Your task to perform on an android device: turn off picture-in-picture Image 0: 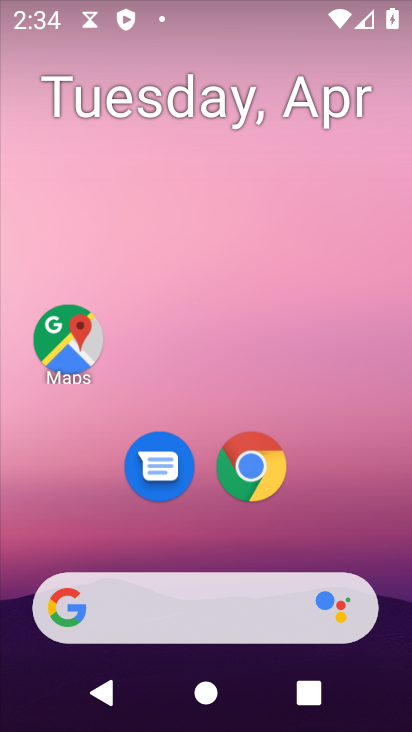
Step 0: drag from (350, 520) to (205, 48)
Your task to perform on an android device: turn off picture-in-picture Image 1: 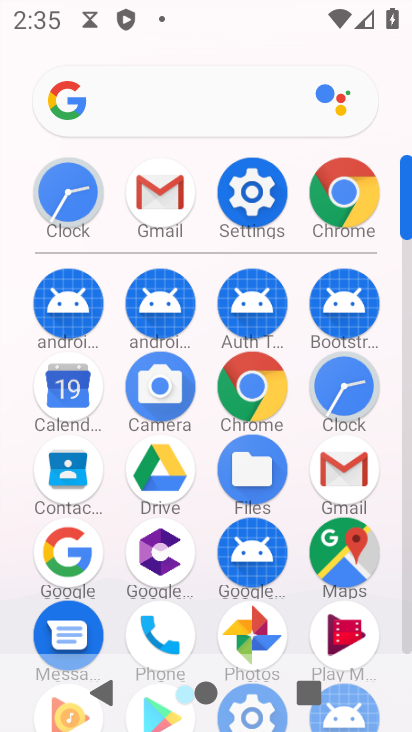
Step 1: click (246, 186)
Your task to perform on an android device: turn off picture-in-picture Image 2: 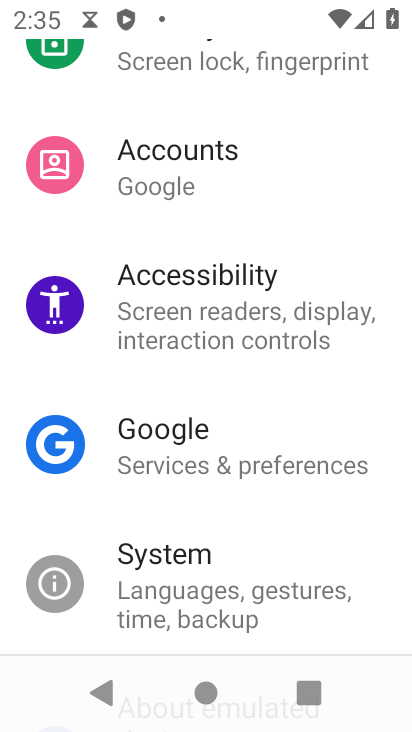
Step 2: drag from (313, 503) to (278, 126)
Your task to perform on an android device: turn off picture-in-picture Image 3: 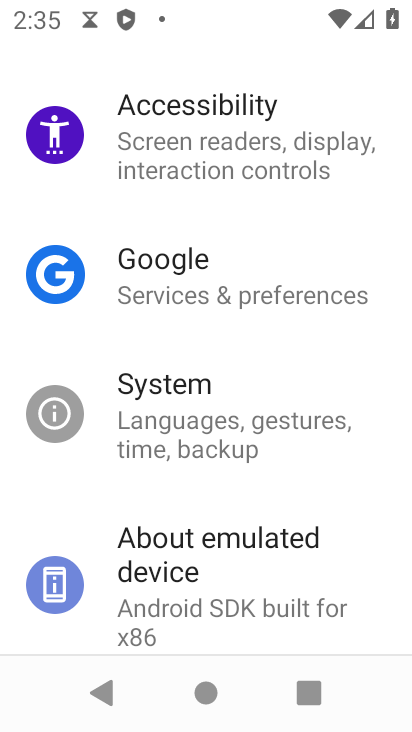
Step 3: drag from (290, 431) to (278, 61)
Your task to perform on an android device: turn off picture-in-picture Image 4: 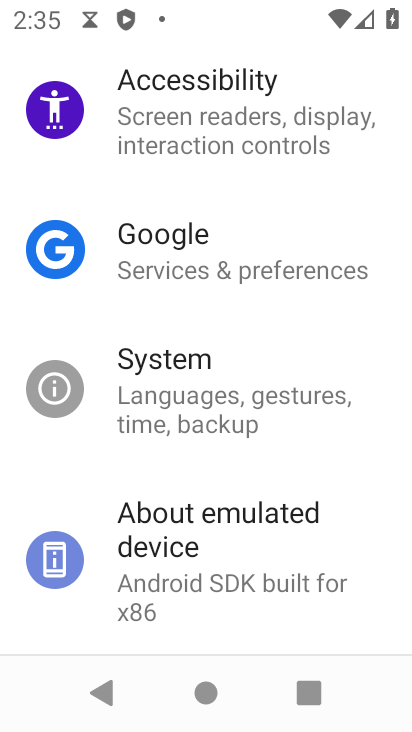
Step 4: drag from (277, 430) to (279, 123)
Your task to perform on an android device: turn off picture-in-picture Image 5: 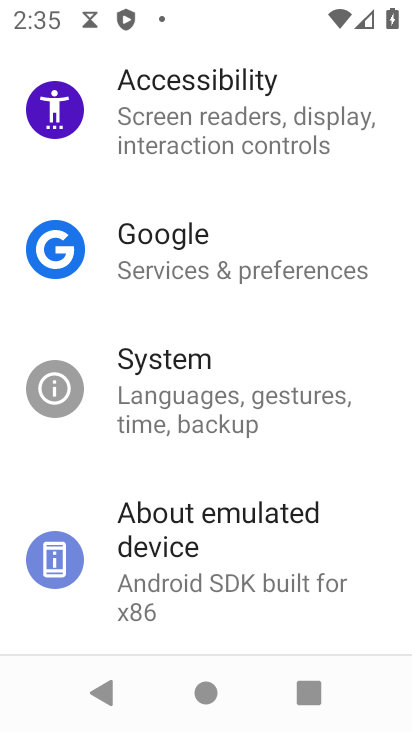
Step 5: drag from (259, 167) to (273, 487)
Your task to perform on an android device: turn off picture-in-picture Image 6: 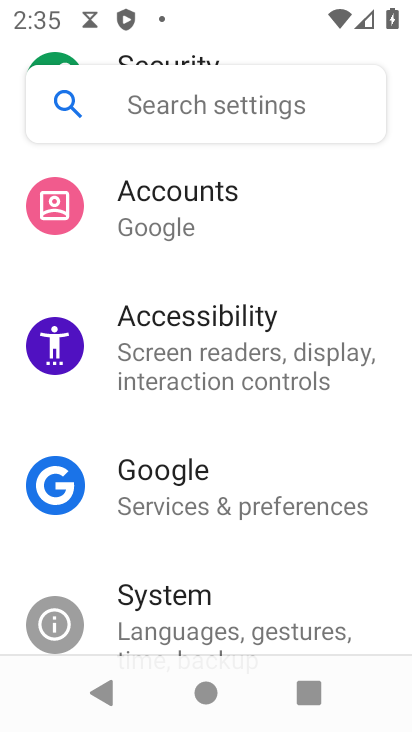
Step 6: drag from (278, 216) to (284, 451)
Your task to perform on an android device: turn off picture-in-picture Image 7: 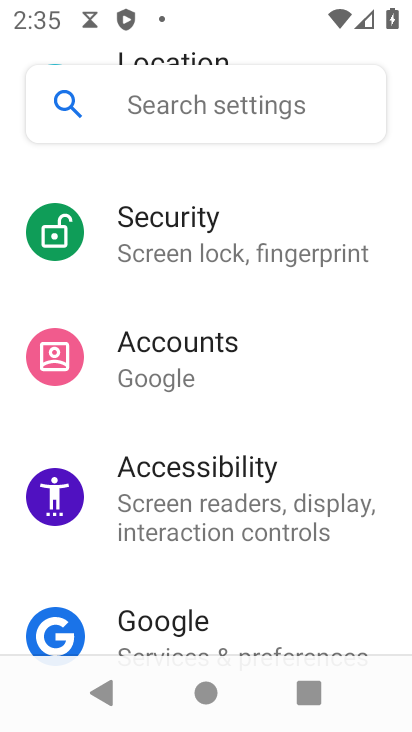
Step 7: drag from (282, 146) to (293, 456)
Your task to perform on an android device: turn off picture-in-picture Image 8: 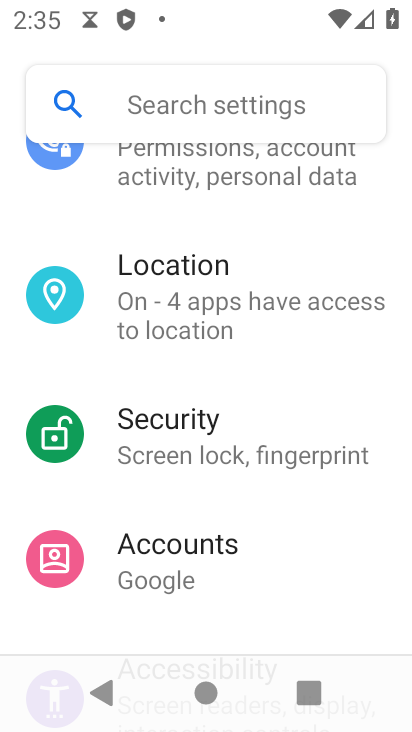
Step 8: drag from (257, 196) to (258, 444)
Your task to perform on an android device: turn off picture-in-picture Image 9: 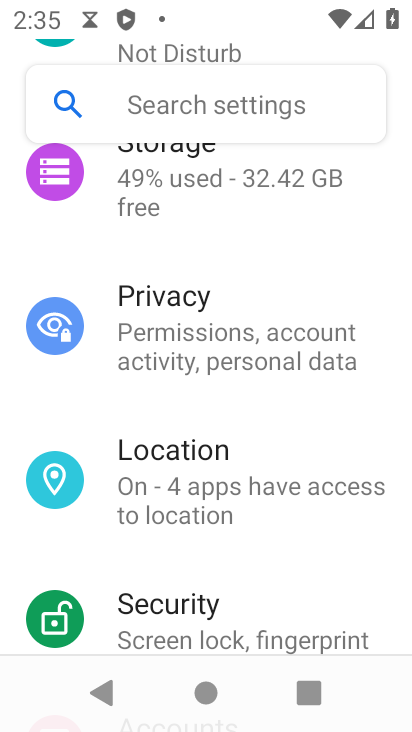
Step 9: drag from (252, 154) to (254, 417)
Your task to perform on an android device: turn off picture-in-picture Image 10: 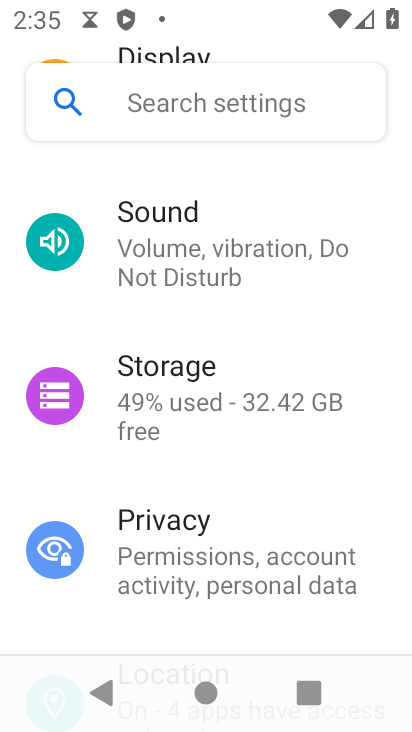
Step 10: drag from (252, 174) to (254, 417)
Your task to perform on an android device: turn off picture-in-picture Image 11: 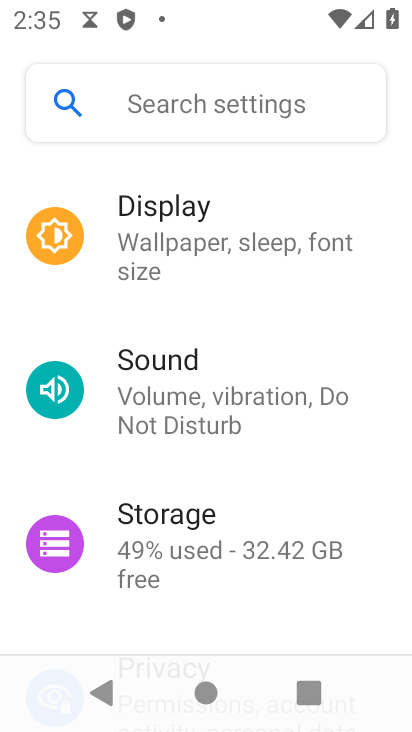
Step 11: drag from (256, 184) to (274, 473)
Your task to perform on an android device: turn off picture-in-picture Image 12: 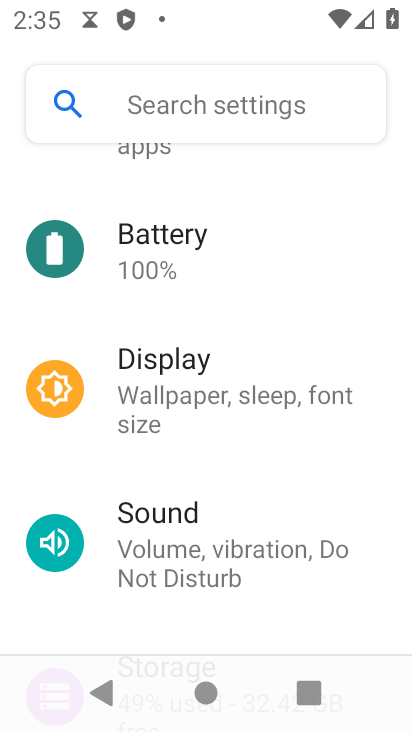
Step 12: drag from (249, 304) to (237, 499)
Your task to perform on an android device: turn off picture-in-picture Image 13: 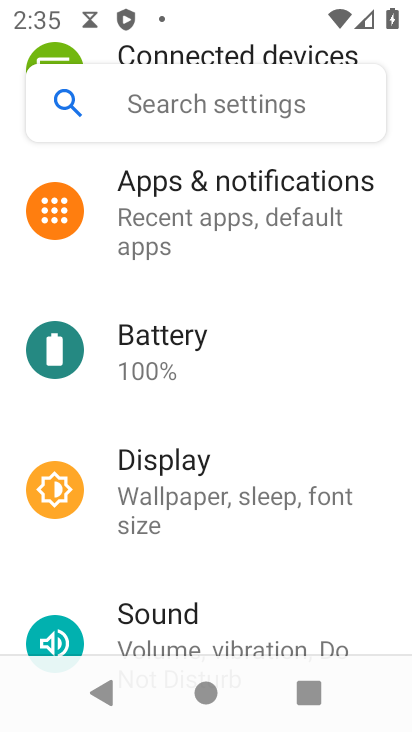
Step 13: click (232, 236)
Your task to perform on an android device: turn off picture-in-picture Image 14: 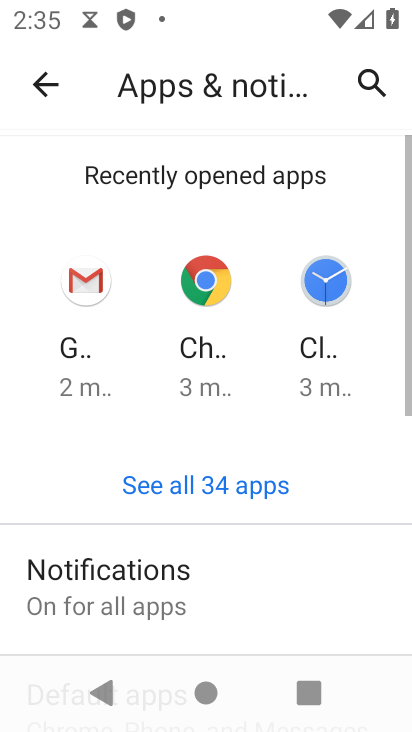
Step 14: drag from (240, 571) to (257, 211)
Your task to perform on an android device: turn off picture-in-picture Image 15: 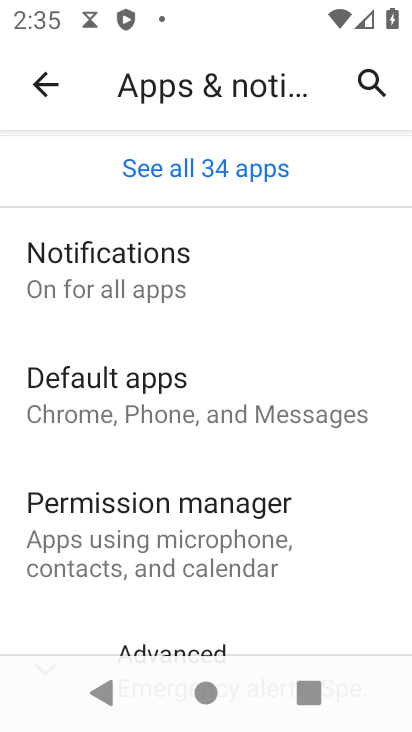
Step 15: drag from (254, 375) to (248, 144)
Your task to perform on an android device: turn off picture-in-picture Image 16: 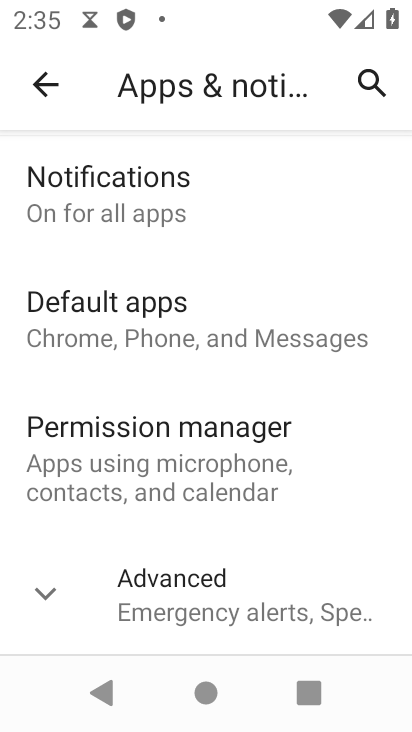
Step 16: click (234, 548)
Your task to perform on an android device: turn off picture-in-picture Image 17: 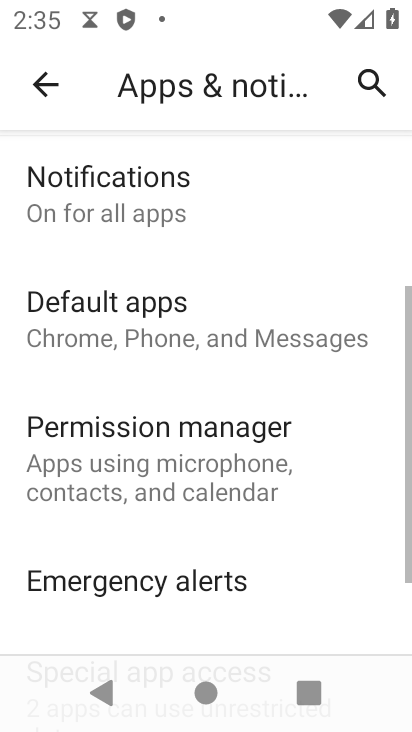
Step 17: drag from (270, 612) to (273, 103)
Your task to perform on an android device: turn off picture-in-picture Image 18: 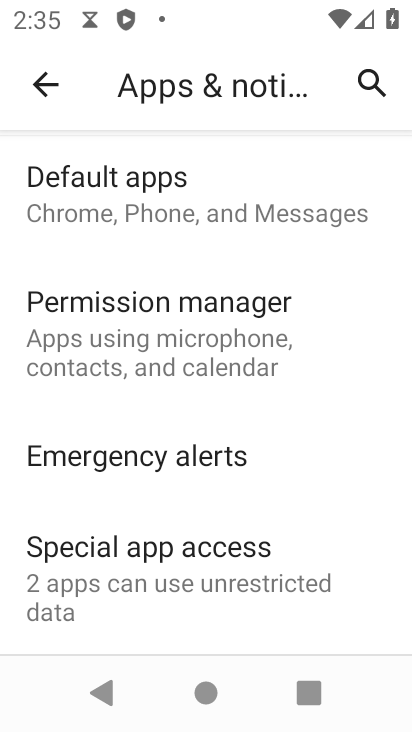
Step 18: drag from (265, 543) to (268, 202)
Your task to perform on an android device: turn off picture-in-picture Image 19: 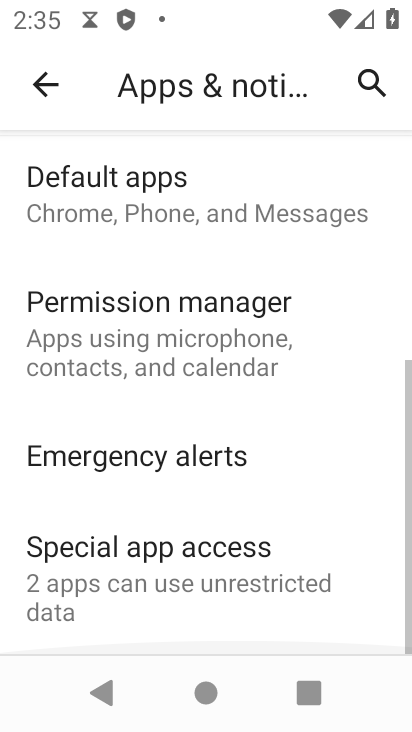
Step 19: click (227, 494)
Your task to perform on an android device: turn off picture-in-picture Image 20: 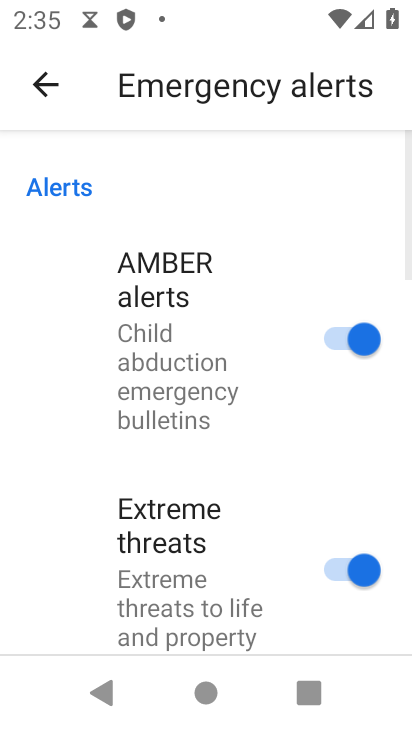
Step 20: click (108, 696)
Your task to perform on an android device: turn off picture-in-picture Image 21: 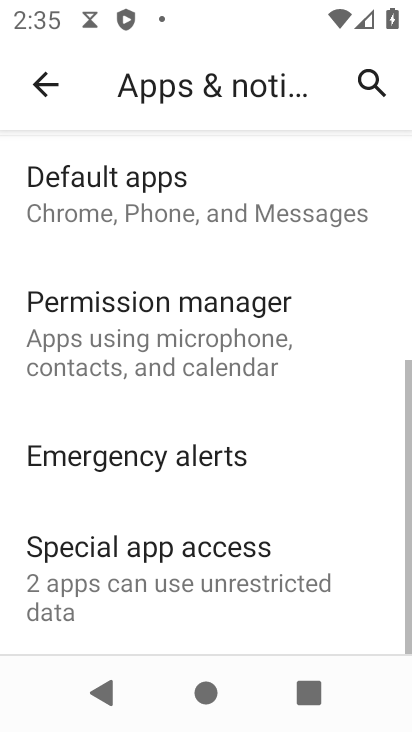
Step 21: click (137, 555)
Your task to perform on an android device: turn off picture-in-picture Image 22: 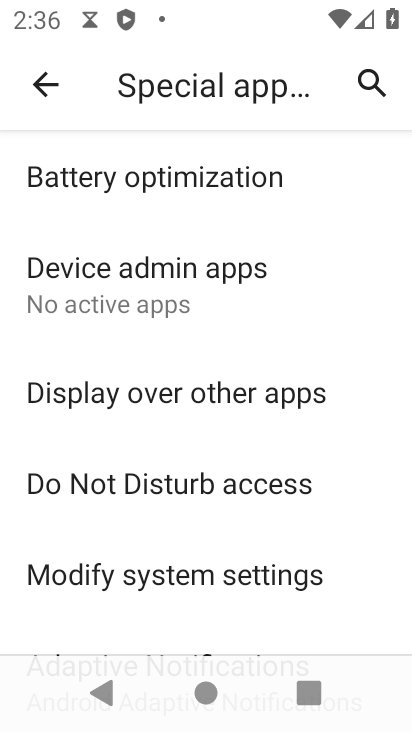
Step 22: drag from (240, 509) to (241, 170)
Your task to perform on an android device: turn off picture-in-picture Image 23: 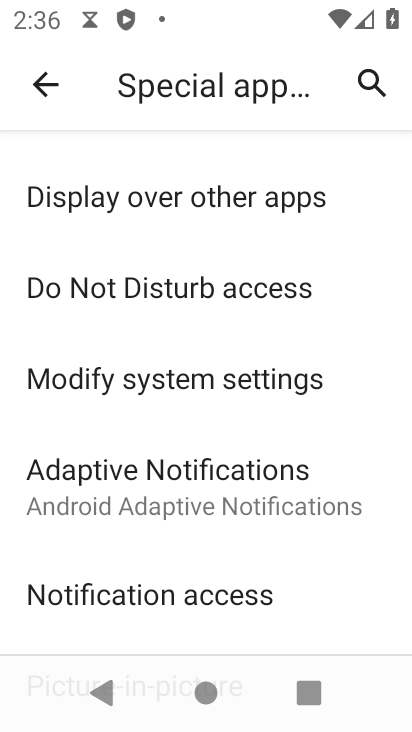
Step 23: drag from (223, 568) to (236, 246)
Your task to perform on an android device: turn off picture-in-picture Image 24: 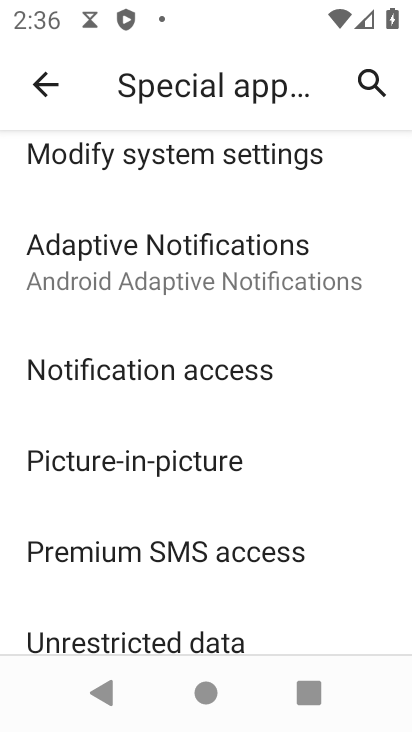
Step 24: click (201, 452)
Your task to perform on an android device: turn off picture-in-picture Image 25: 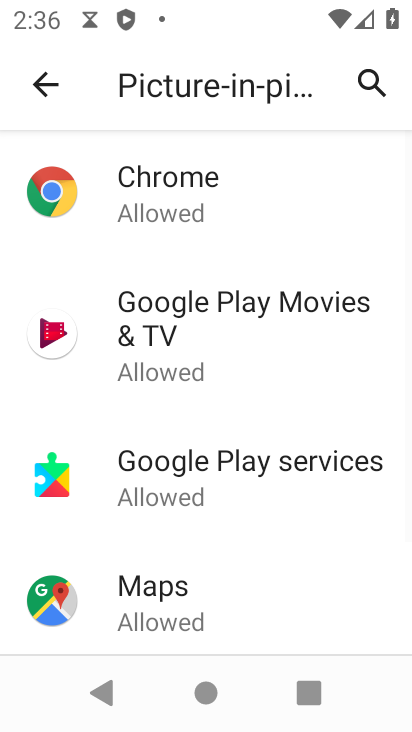
Step 25: click (235, 191)
Your task to perform on an android device: turn off picture-in-picture Image 26: 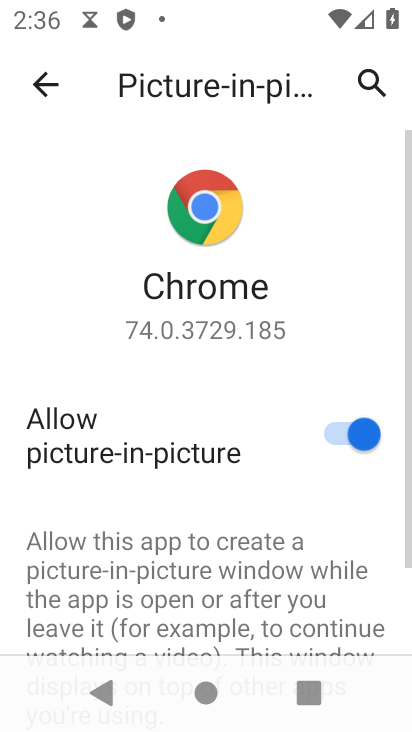
Step 26: click (320, 417)
Your task to perform on an android device: turn off picture-in-picture Image 27: 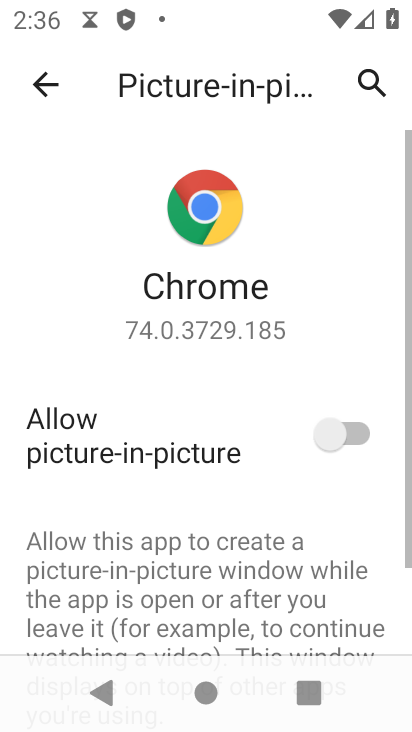
Step 27: click (41, 97)
Your task to perform on an android device: turn off picture-in-picture Image 28: 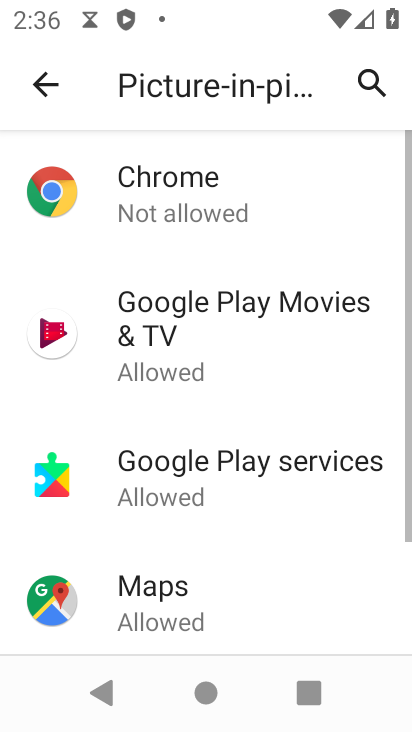
Step 28: click (185, 323)
Your task to perform on an android device: turn off picture-in-picture Image 29: 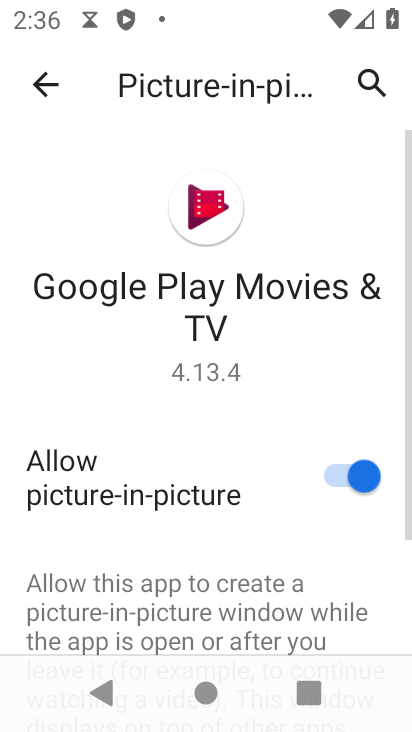
Step 29: click (332, 471)
Your task to perform on an android device: turn off picture-in-picture Image 30: 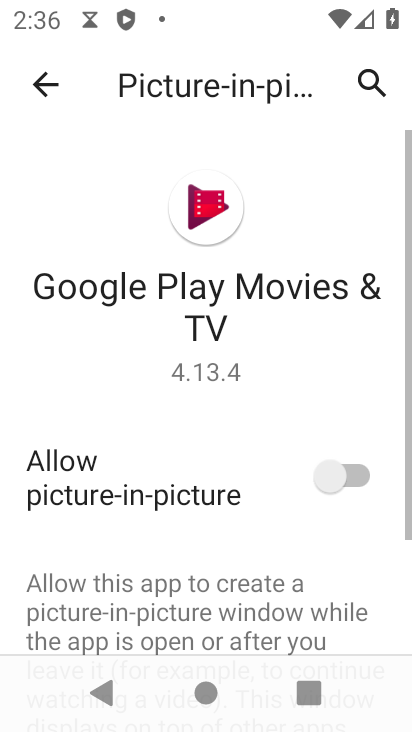
Step 30: click (58, 80)
Your task to perform on an android device: turn off picture-in-picture Image 31: 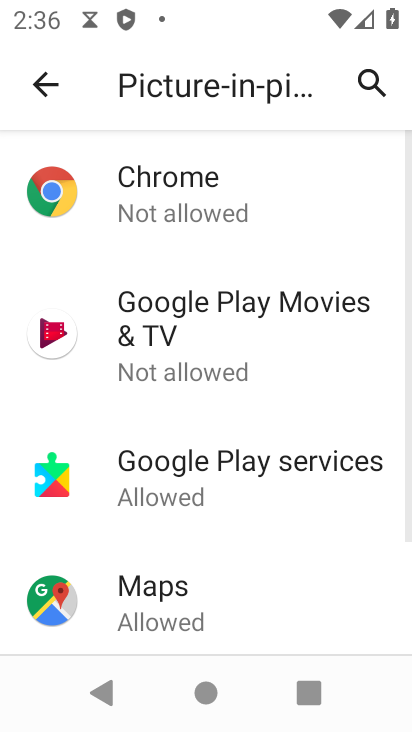
Step 31: click (216, 466)
Your task to perform on an android device: turn off picture-in-picture Image 32: 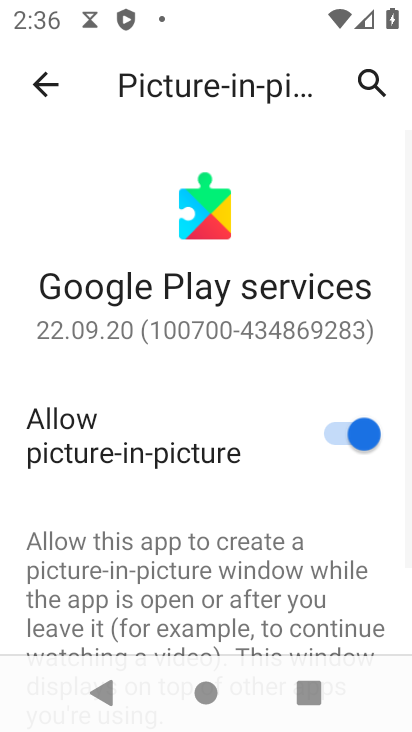
Step 32: click (342, 437)
Your task to perform on an android device: turn off picture-in-picture Image 33: 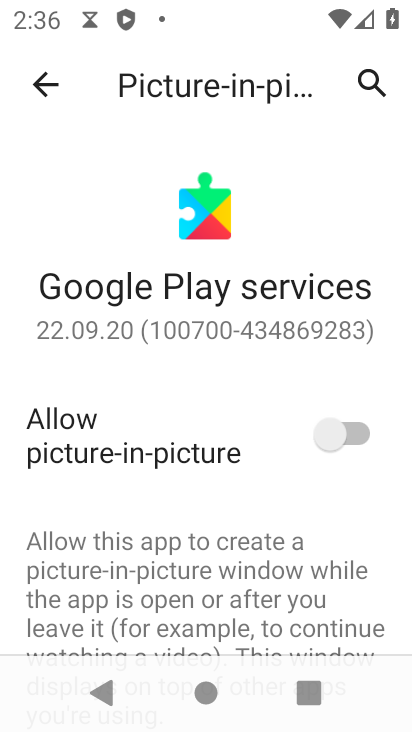
Step 33: click (64, 89)
Your task to perform on an android device: turn off picture-in-picture Image 34: 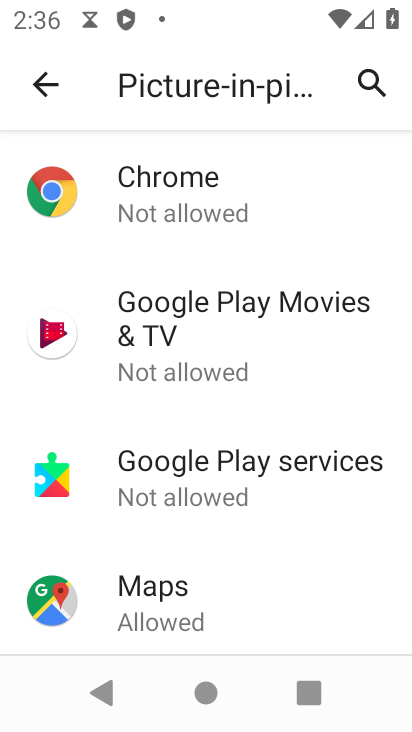
Step 34: click (187, 618)
Your task to perform on an android device: turn off picture-in-picture Image 35: 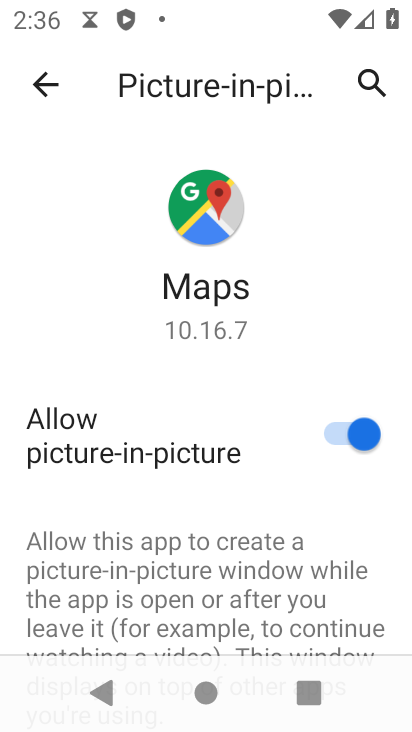
Step 35: click (36, 94)
Your task to perform on an android device: turn off picture-in-picture Image 36: 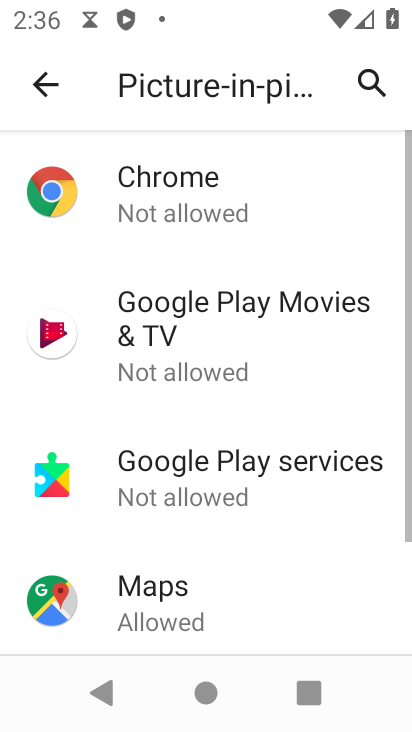
Step 36: drag from (220, 606) to (212, 204)
Your task to perform on an android device: turn off picture-in-picture Image 37: 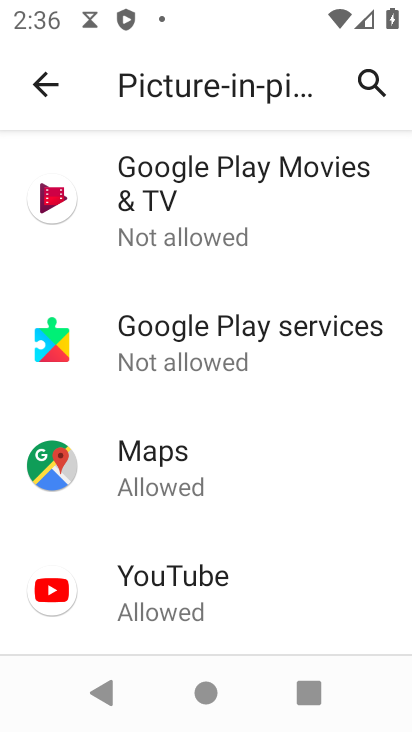
Step 37: drag from (229, 541) to (227, 238)
Your task to perform on an android device: turn off picture-in-picture Image 38: 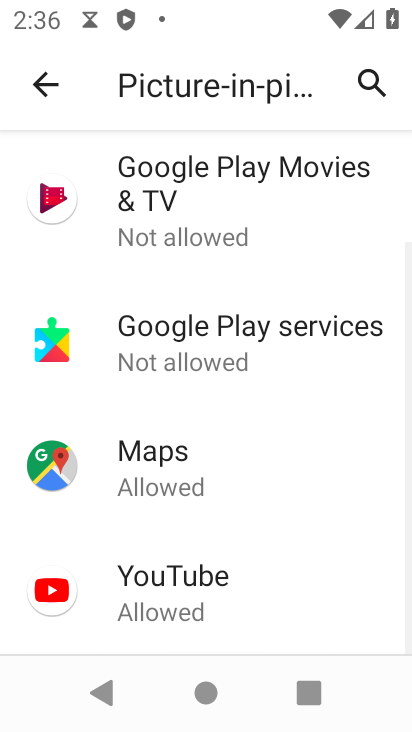
Step 38: click (214, 478)
Your task to perform on an android device: turn off picture-in-picture Image 39: 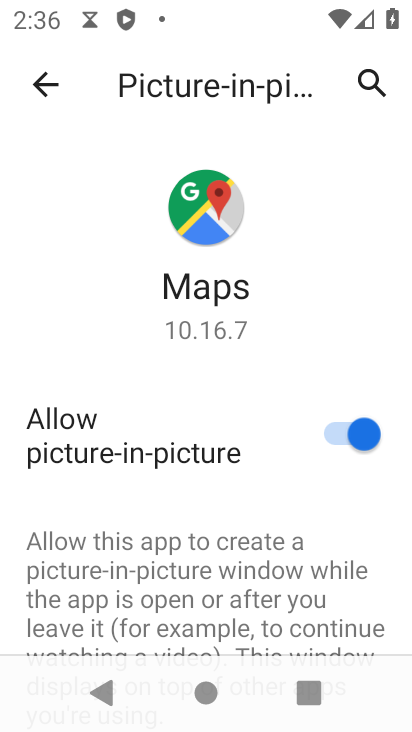
Step 39: click (29, 81)
Your task to perform on an android device: turn off picture-in-picture Image 40: 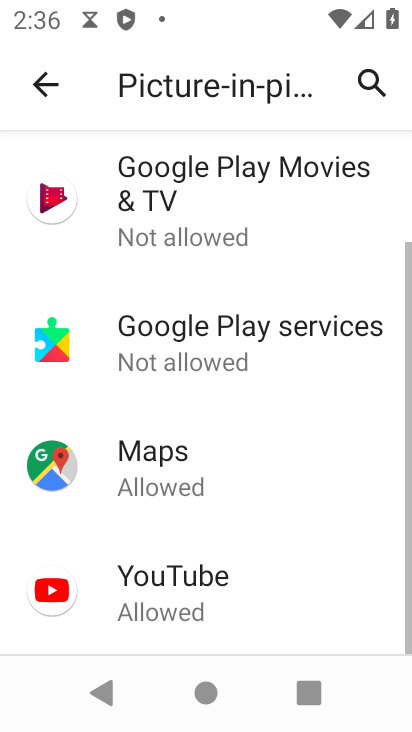
Step 40: click (181, 480)
Your task to perform on an android device: turn off picture-in-picture Image 41: 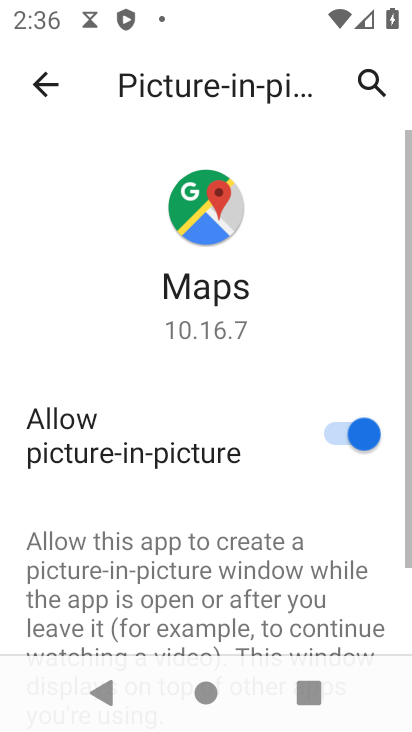
Step 41: click (344, 425)
Your task to perform on an android device: turn off picture-in-picture Image 42: 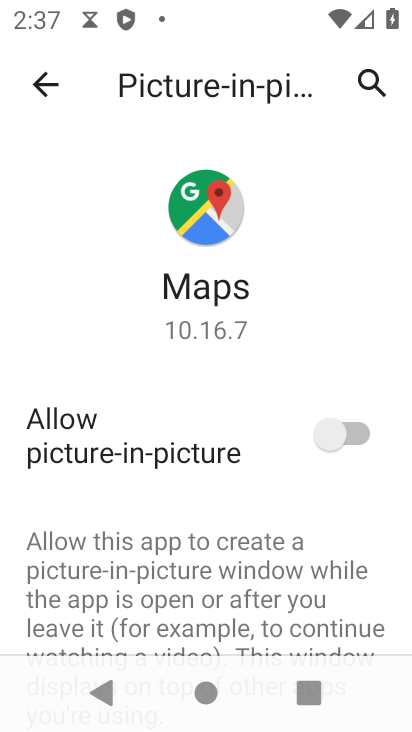
Step 42: click (54, 85)
Your task to perform on an android device: turn off picture-in-picture Image 43: 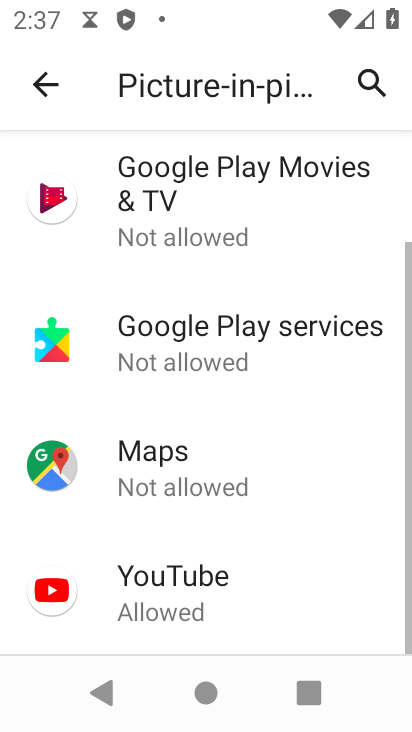
Step 43: click (185, 578)
Your task to perform on an android device: turn off picture-in-picture Image 44: 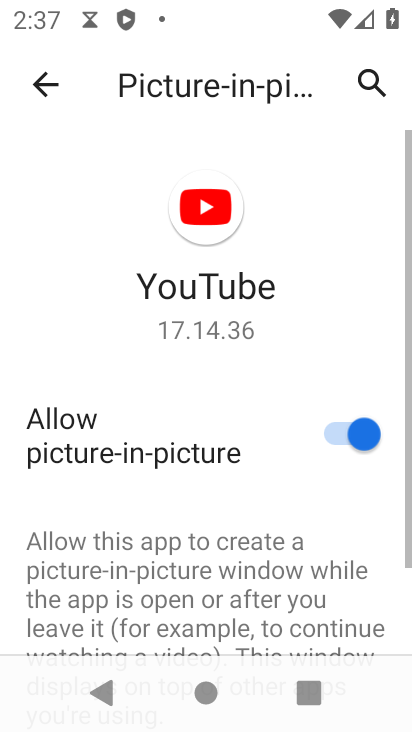
Step 44: click (343, 430)
Your task to perform on an android device: turn off picture-in-picture Image 45: 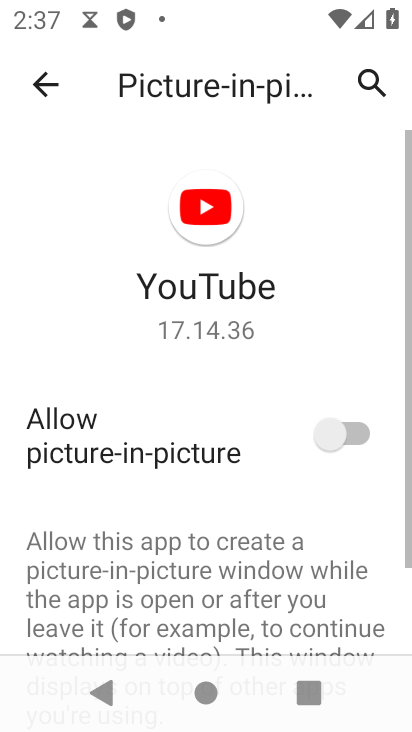
Step 45: click (44, 78)
Your task to perform on an android device: turn off picture-in-picture Image 46: 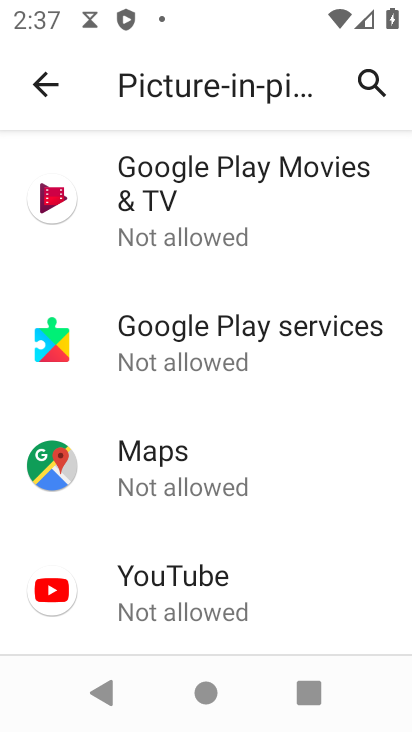
Step 46: task complete